Your task to perform on an android device: Go to Wikipedia Image 0: 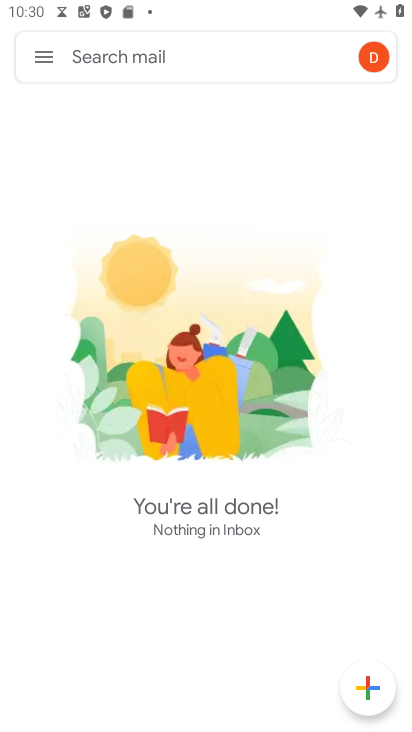
Step 0: press back button
Your task to perform on an android device: Go to Wikipedia Image 1: 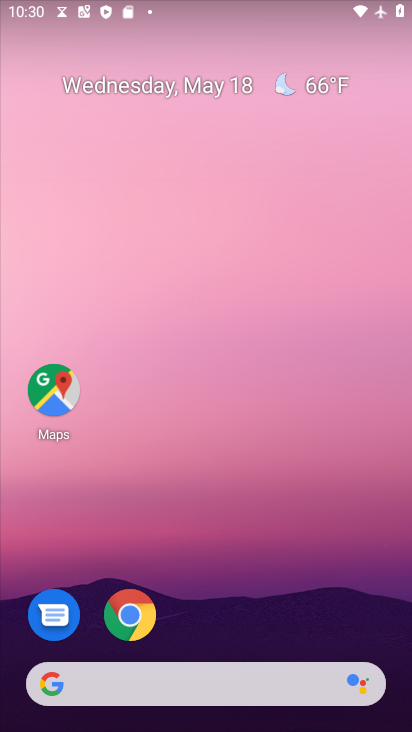
Step 1: press back button
Your task to perform on an android device: Go to Wikipedia Image 2: 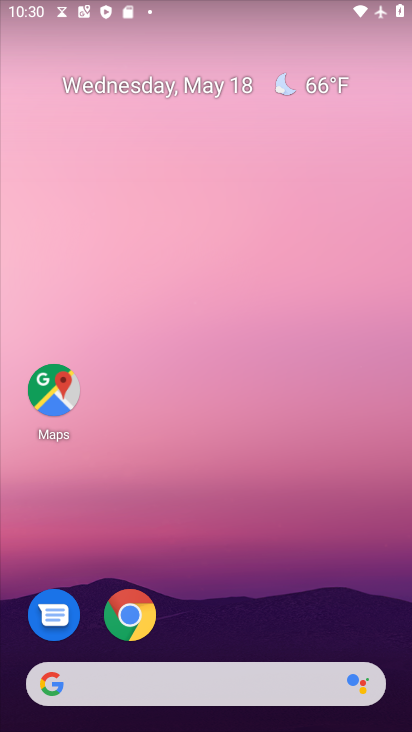
Step 2: drag from (217, 459) to (175, 28)
Your task to perform on an android device: Go to Wikipedia Image 3: 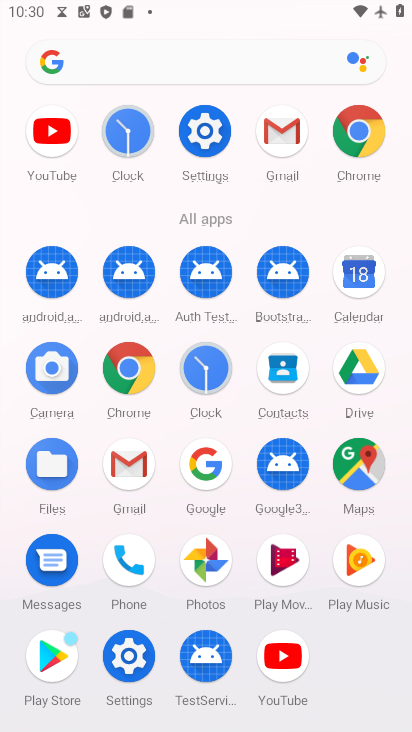
Step 3: click (127, 361)
Your task to perform on an android device: Go to Wikipedia Image 4: 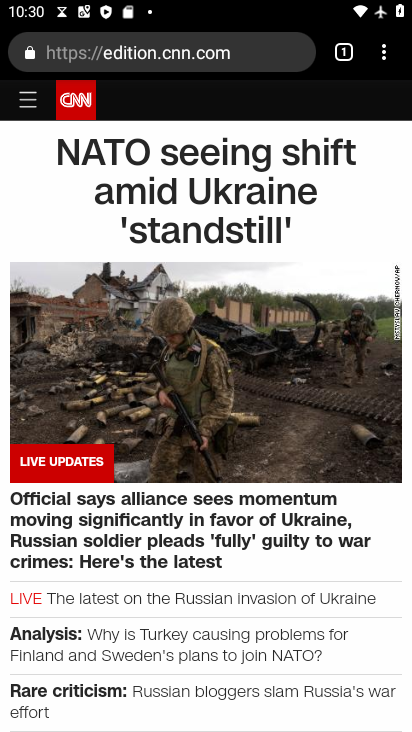
Step 4: click (171, 55)
Your task to perform on an android device: Go to Wikipedia Image 5: 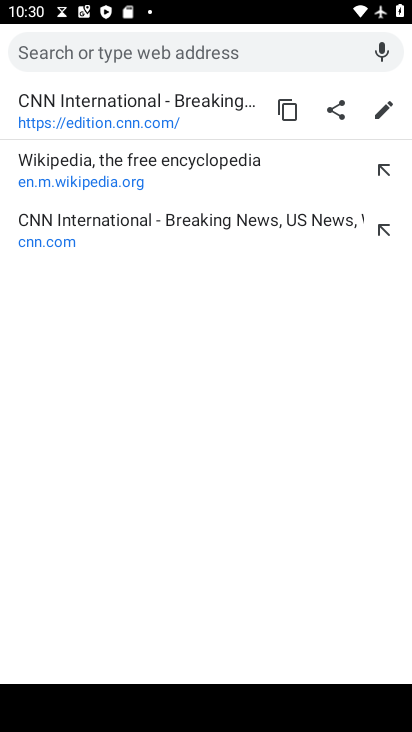
Step 5: click (179, 50)
Your task to perform on an android device: Go to Wikipedia Image 6: 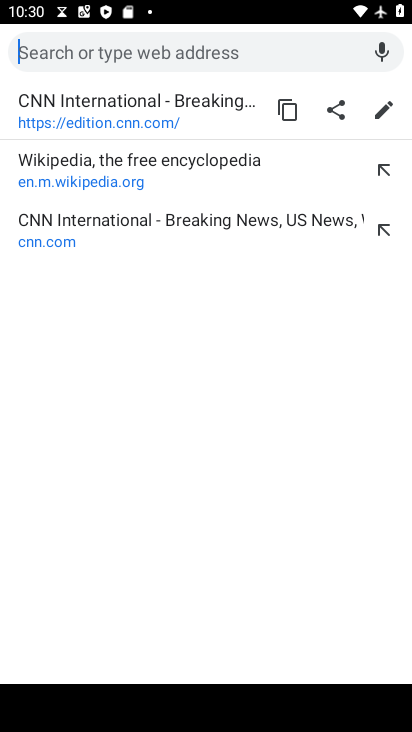
Step 6: click (159, 159)
Your task to perform on an android device: Go to Wikipedia Image 7: 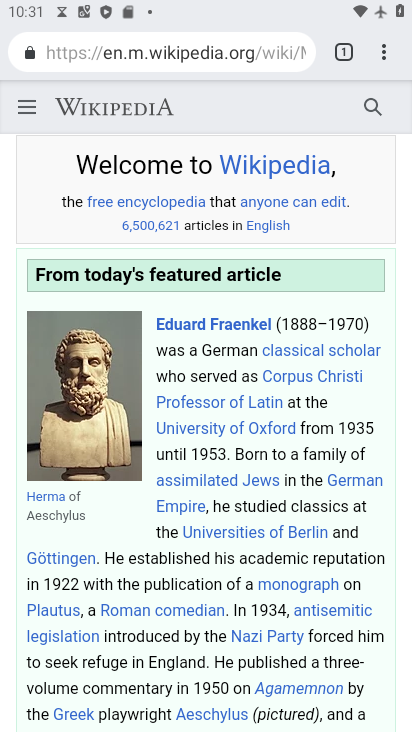
Step 7: task complete